Your task to perform on an android device: turn on airplane mode Image 0: 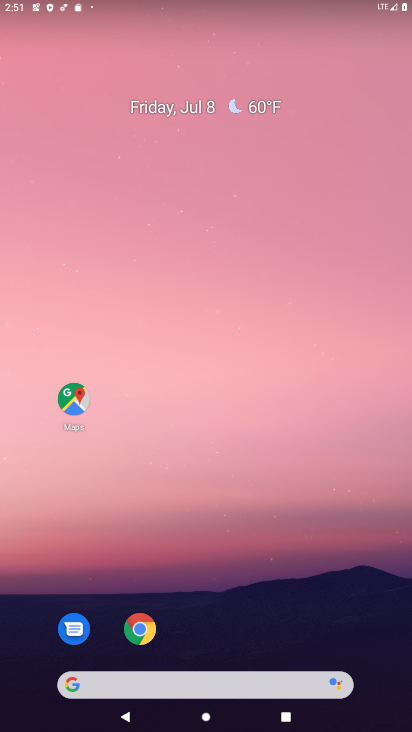
Step 0: drag from (189, 649) to (192, 192)
Your task to perform on an android device: turn on airplane mode Image 1: 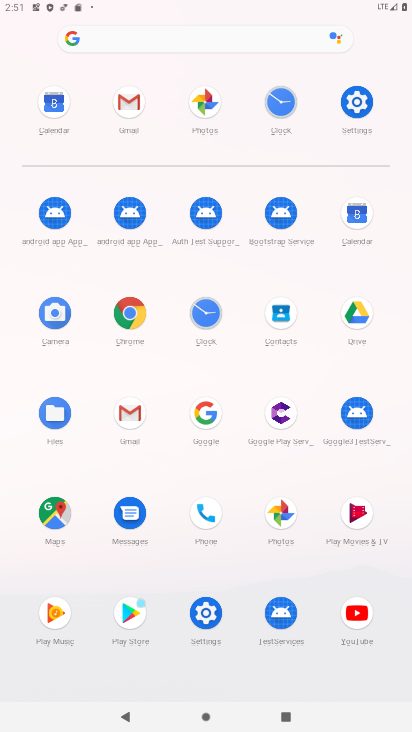
Step 1: click (359, 121)
Your task to perform on an android device: turn on airplane mode Image 2: 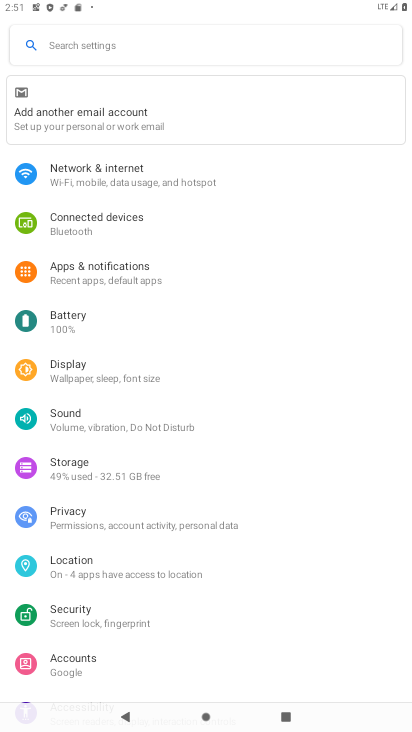
Step 2: click (160, 176)
Your task to perform on an android device: turn on airplane mode Image 3: 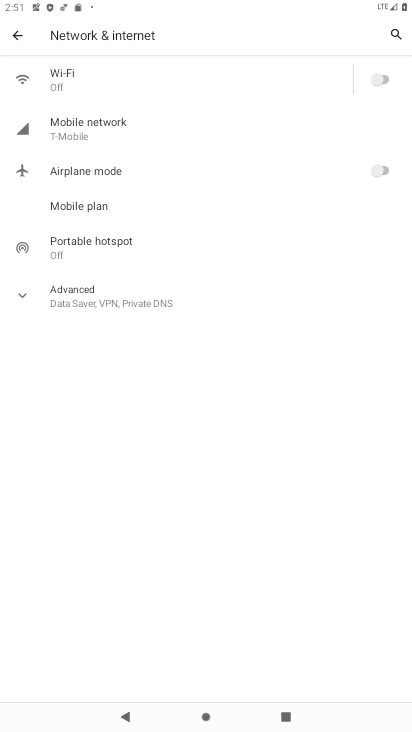
Step 3: click (378, 173)
Your task to perform on an android device: turn on airplane mode Image 4: 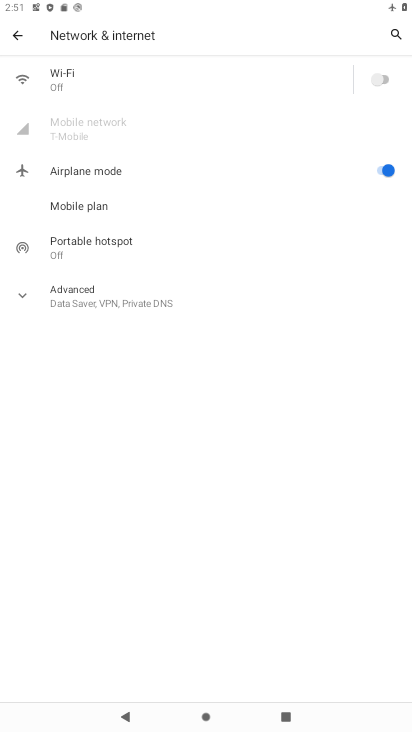
Step 4: task complete